Your task to perform on an android device: Show me the alarms in the clock app Image 0: 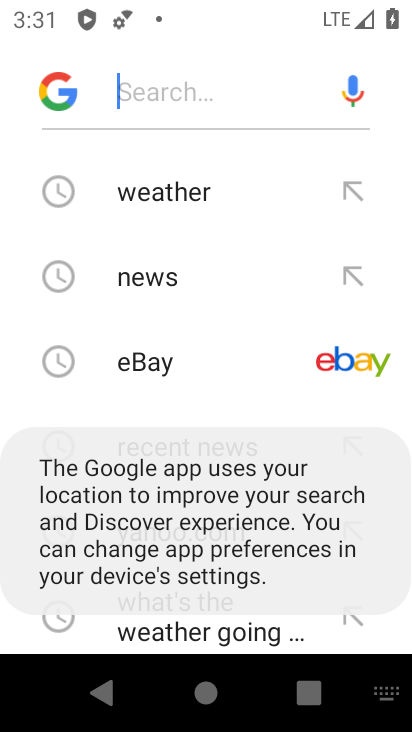
Step 0: press home button
Your task to perform on an android device: Show me the alarms in the clock app Image 1: 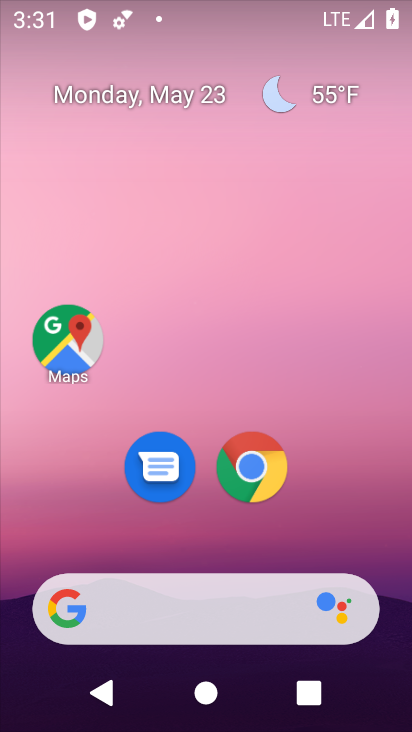
Step 1: drag from (204, 561) to (237, 214)
Your task to perform on an android device: Show me the alarms in the clock app Image 2: 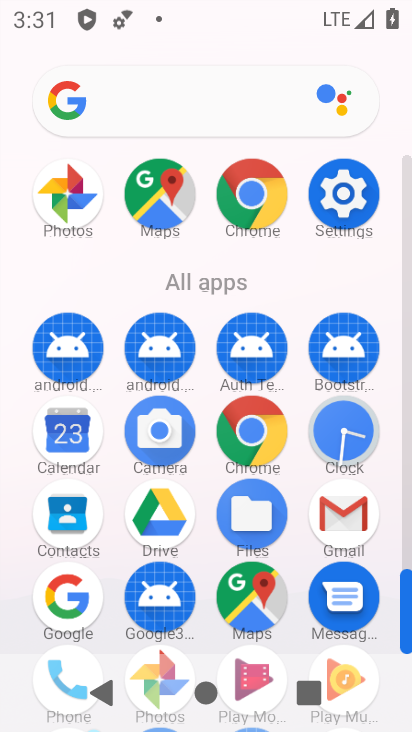
Step 2: click (339, 427)
Your task to perform on an android device: Show me the alarms in the clock app Image 3: 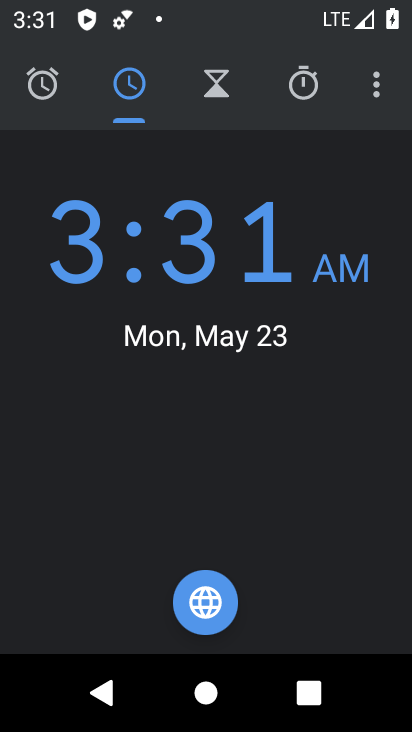
Step 3: click (50, 81)
Your task to perform on an android device: Show me the alarms in the clock app Image 4: 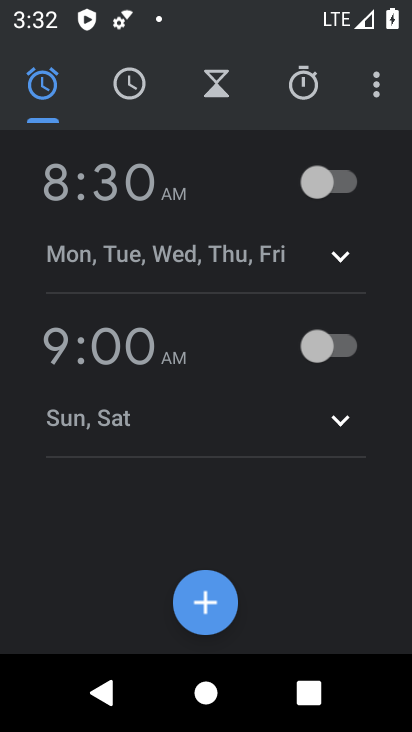
Step 4: task complete